Your task to perform on an android device: open wifi settings Image 0: 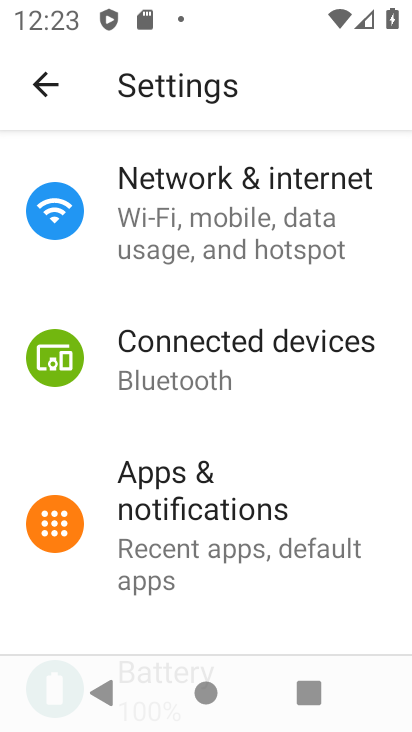
Step 0: press home button
Your task to perform on an android device: open wifi settings Image 1: 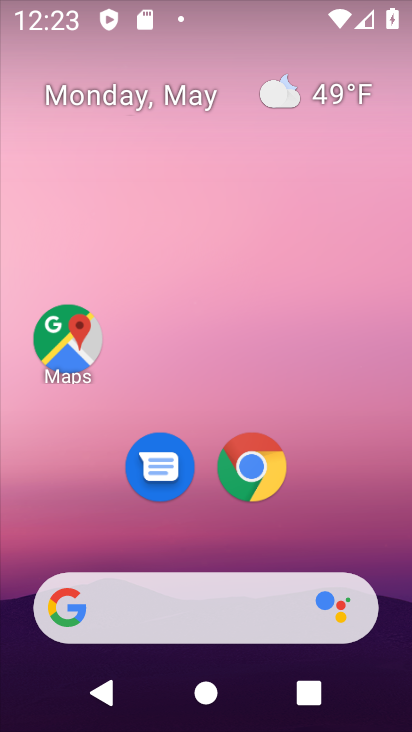
Step 1: drag from (400, 473) to (363, 160)
Your task to perform on an android device: open wifi settings Image 2: 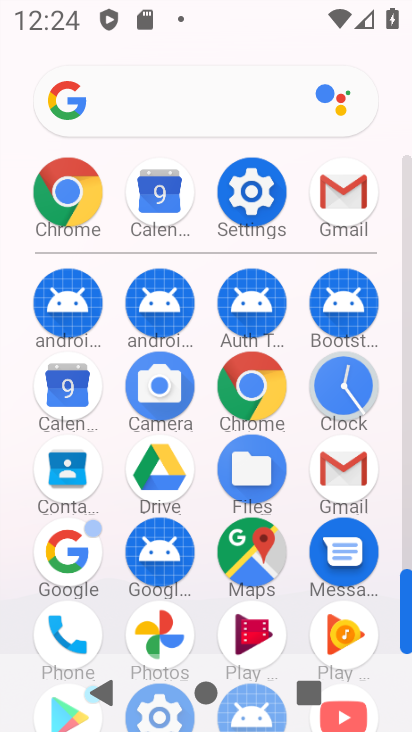
Step 2: click (249, 194)
Your task to perform on an android device: open wifi settings Image 3: 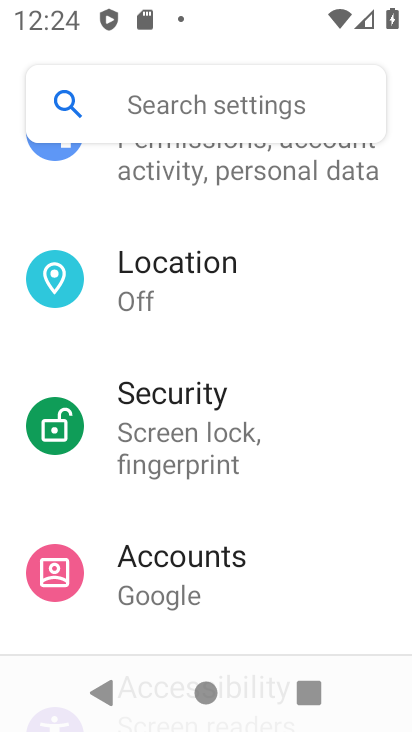
Step 3: drag from (268, 588) to (298, 280)
Your task to perform on an android device: open wifi settings Image 4: 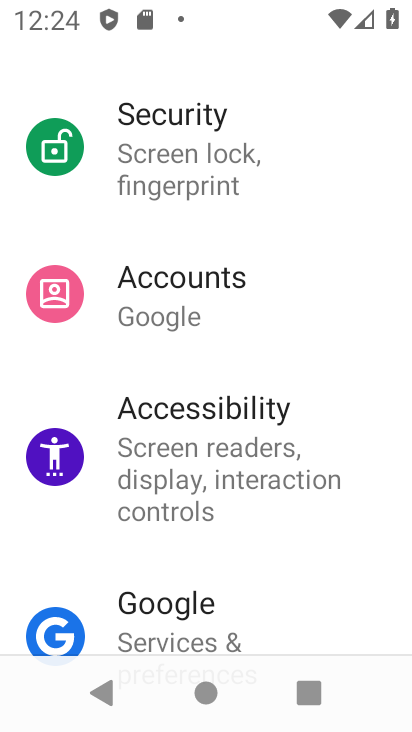
Step 4: drag from (308, 172) to (336, 566)
Your task to perform on an android device: open wifi settings Image 5: 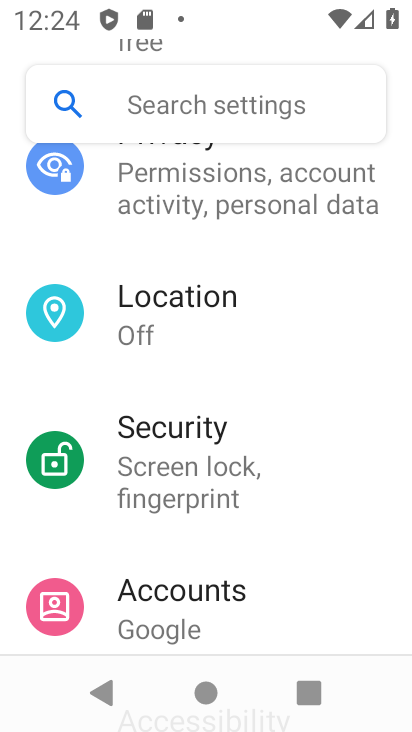
Step 5: drag from (313, 207) to (329, 579)
Your task to perform on an android device: open wifi settings Image 6: 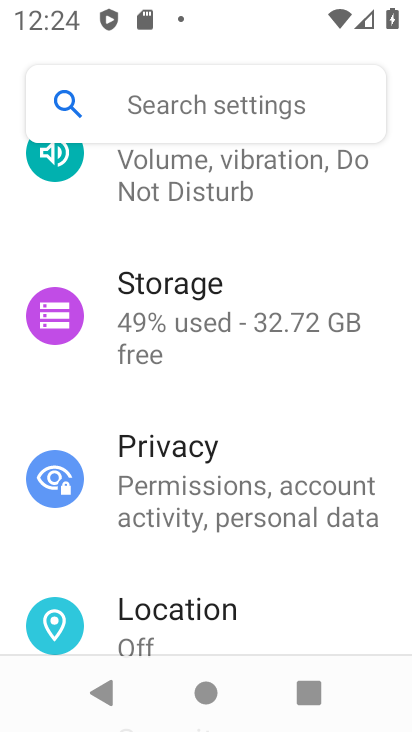
Step 6: drag from (271, 259) to (321, 622)
Your task to perform on an android device: open wifi settings Image 7: 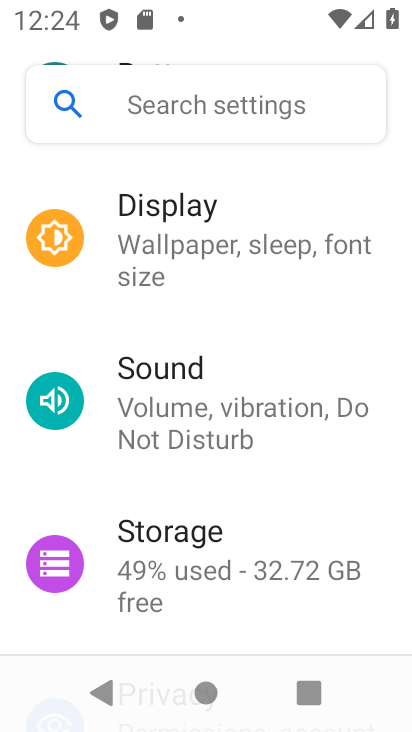
Step 7: drag from (280, 250) to (301, 546)
Your task to perform on an android device: open wifi settings Image 8: 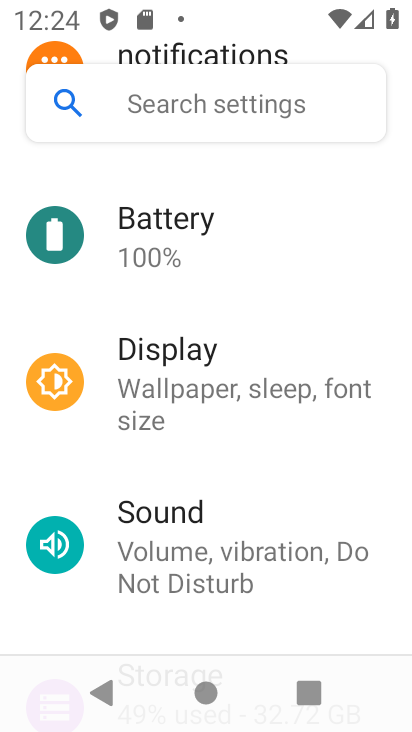
Step 8: drag from (280, 237) to (318, 604)
Your task to perform on an android device: open wifi settings Image 9: 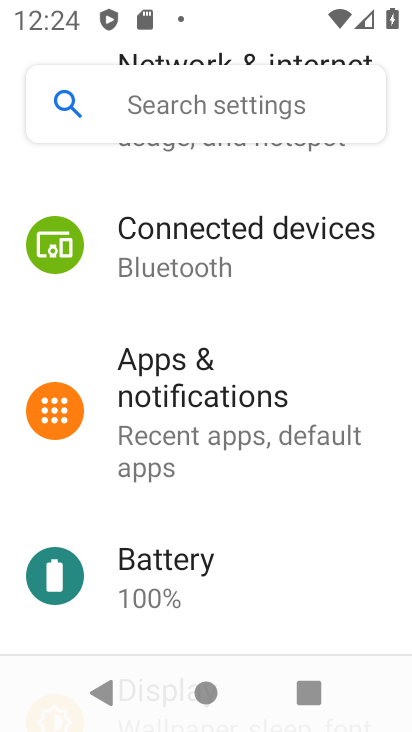
Step 9: drag from (272, 257) to (335, 587)
Your task to perform on an android device: open wifi settings Image 10: 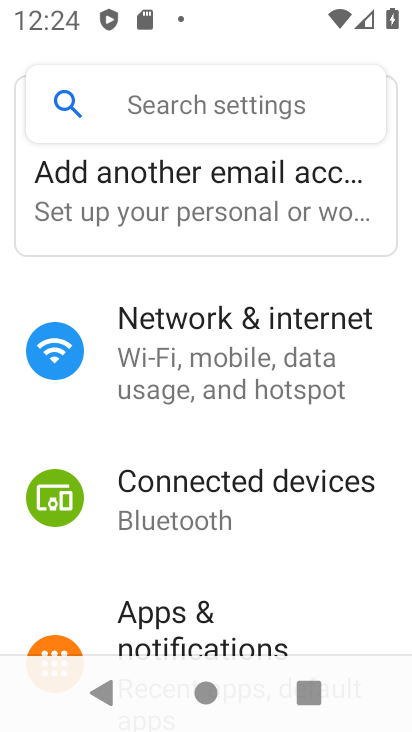
Step 10: click (242, 375)
Your task to perform on an android device: open wifi settings Image 11: 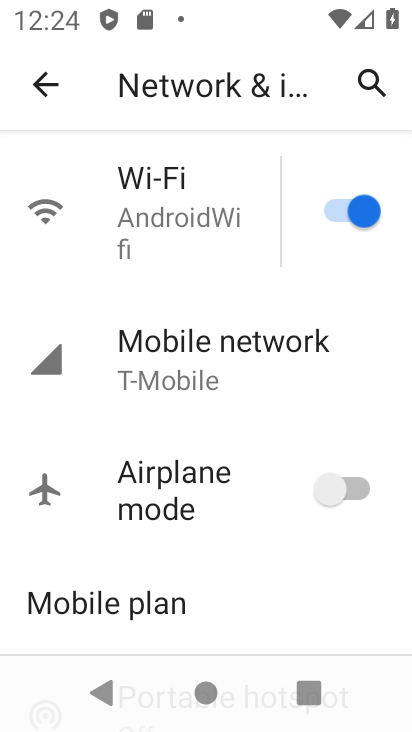
Step 11: click (183, 221)
Your task to perform on an android device: open wifi settings Image 12: 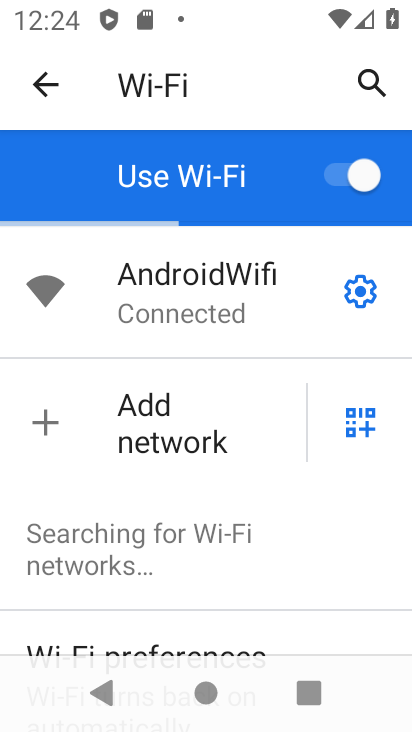
Step 12: task complete